Your task to perform on an android device: read, delete, or share a saved page in the chrome app Image 0: 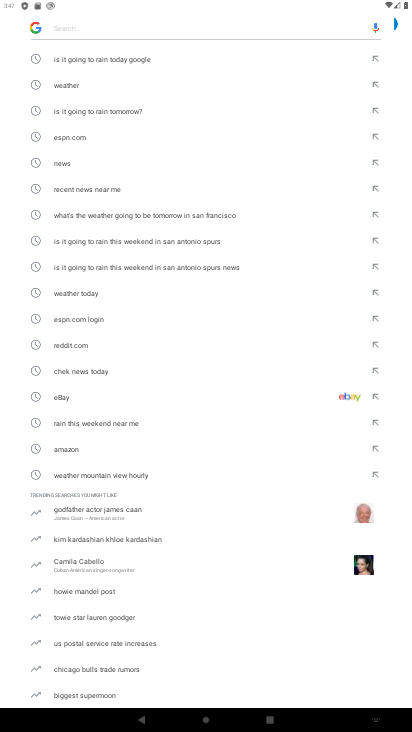
Step 0: press home button
Your task to perform on an android device: read, delete, or share a saved page in the chrome app Image 1: 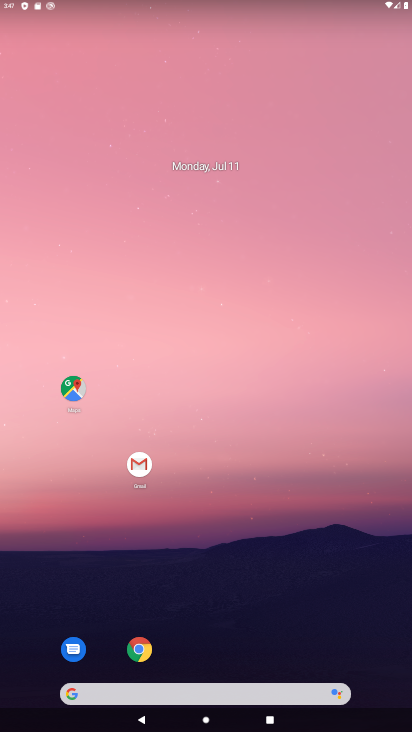
Step 1: click (141, 643)
Your task to perform on an android device: read, delete, or share a saved page in the chrome app Image 2: 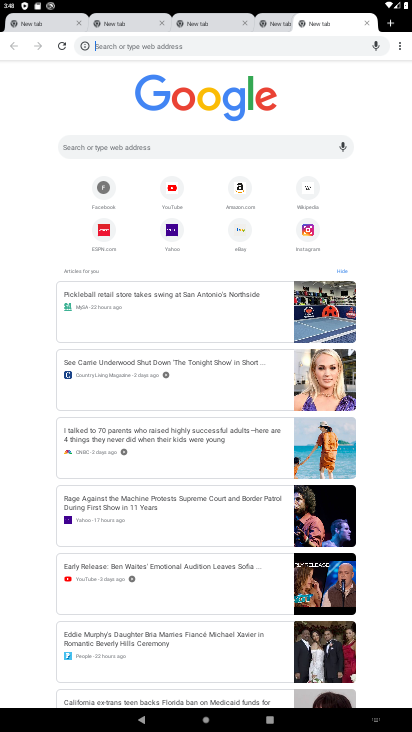
Step 2: click (400, 45)
Your task to perform on an android device: read, delete, or share a saved page in the chrome app Image 3: 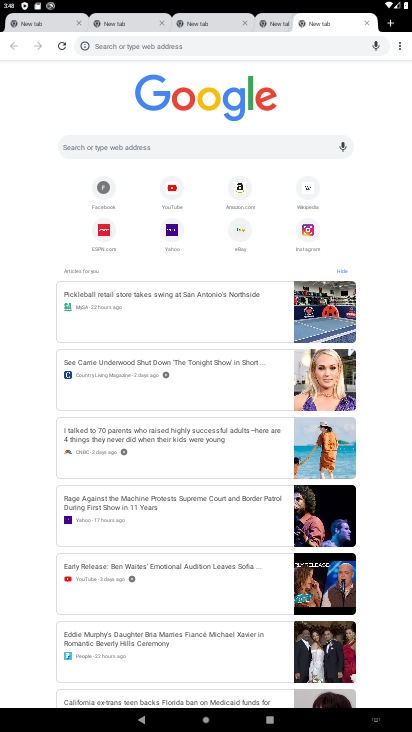
Step 3: click (399, 48)
Your task to perform on an android device: read, delete, or share a saved page in the chrome app Image 4: 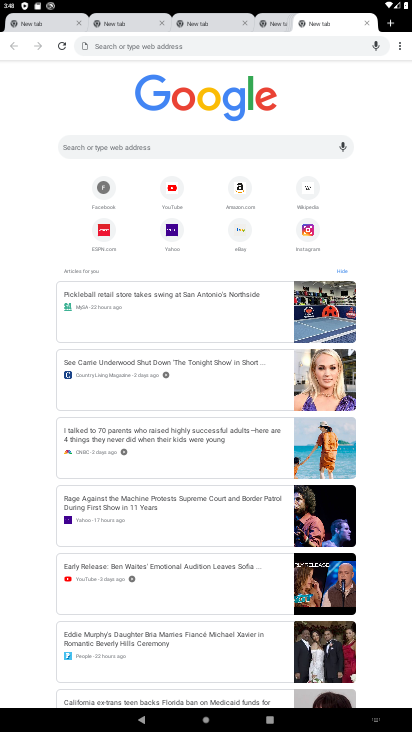
Step 4: task complete